Your task to perform on an android device: Open the calendar and show me this week's events? Image 0: 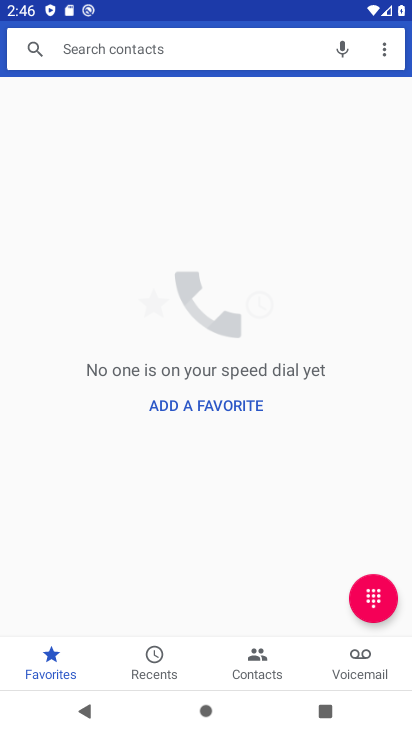
Step 0: press home button
Your task to perform on an android device: Open the calendar and show me this week's events? Image 1: 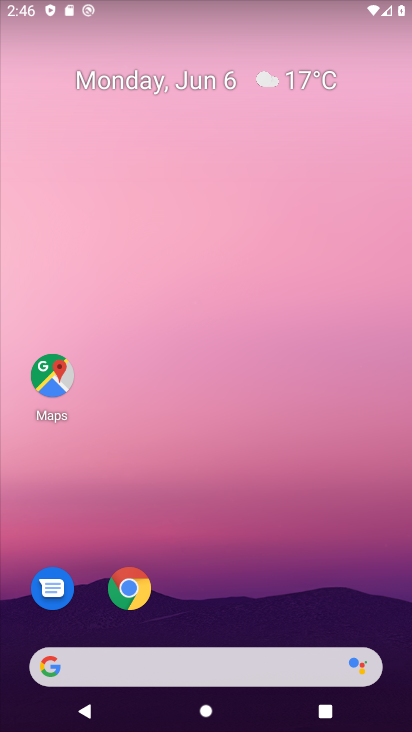
Step 1: drag from (204, 652) to (202, 179)
Your task to perform on an android device: Open the calendar and show me this week's events? Image 2: 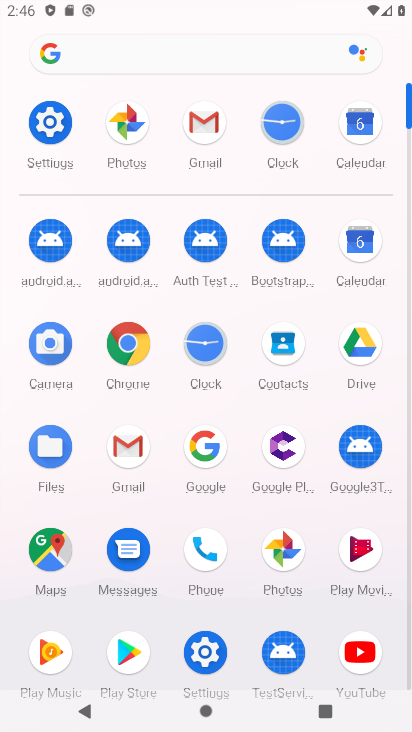
Step 2: click (355, 252)
Your task to perform on an android device: Open the calendar and show me this week's events? Image 3: 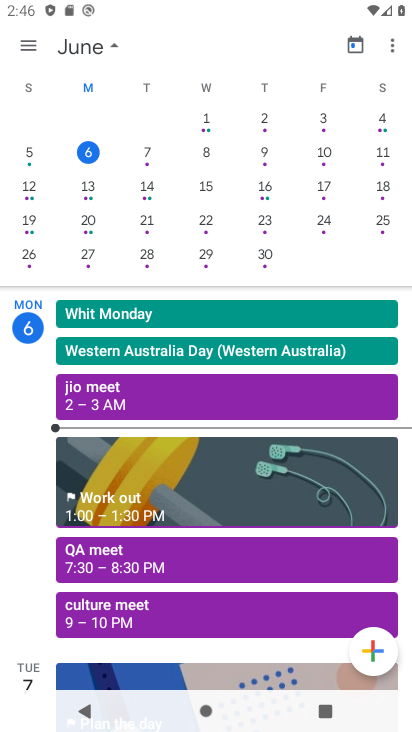
Step 3: click (16, 46)
Your task to perform on an android device: Open the calendar and show me this week's events? Image 4: 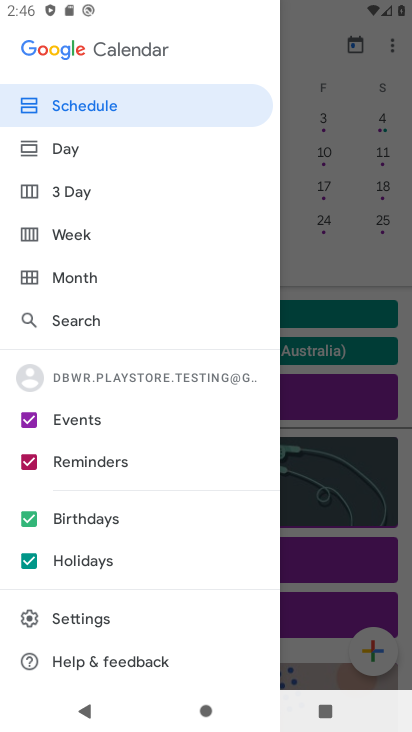
Step 4: click (108, 230)
Your task to perform on an android device: Open the calendar and show me this week's events? Image 5: 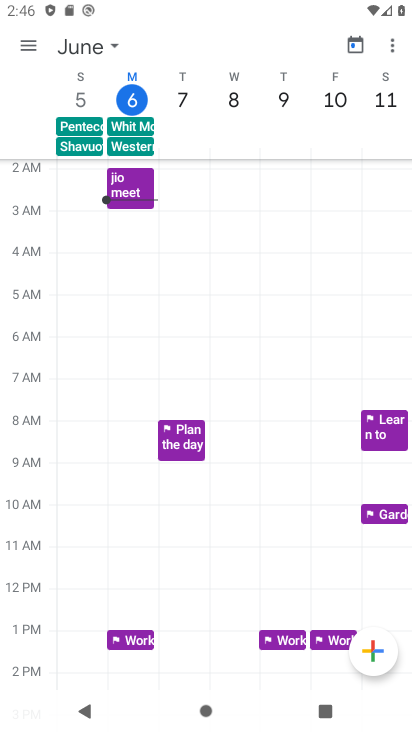
Step 5: task complete